Your task to perform on an android device: Open Youtube and go to the subscriptions tab Image 0: 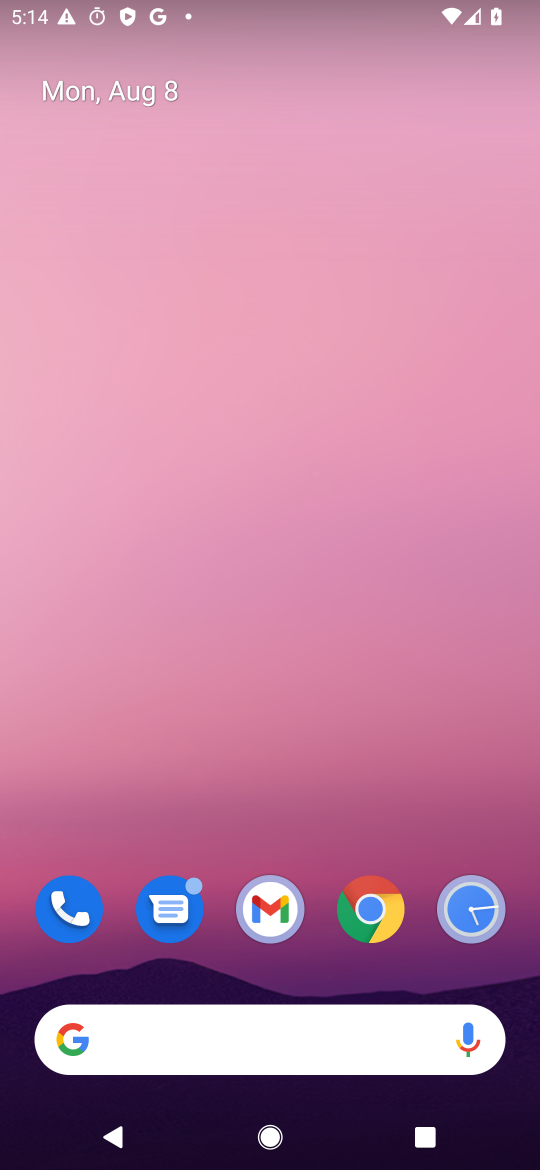
Step 0: drag from (291, 1032) to (500, 75)
Your task to perform on an android device: Open Youtube and go to the subscriptions tab Image 1: 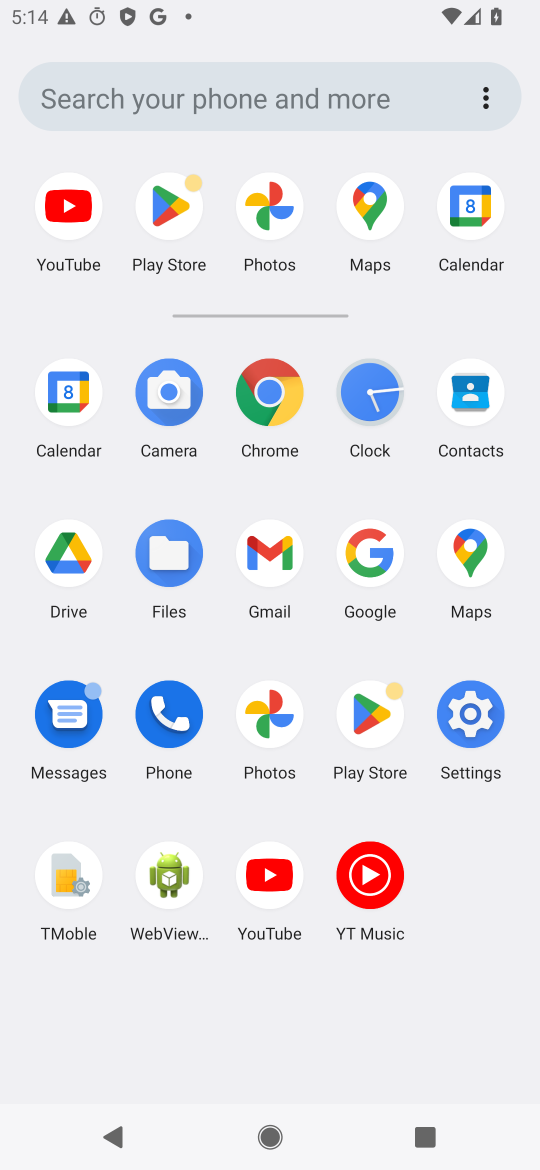
Step 1: click (276, 890)
Your task to perform on an android device: Open Youtube and go to the subscriptions tab Image 2: 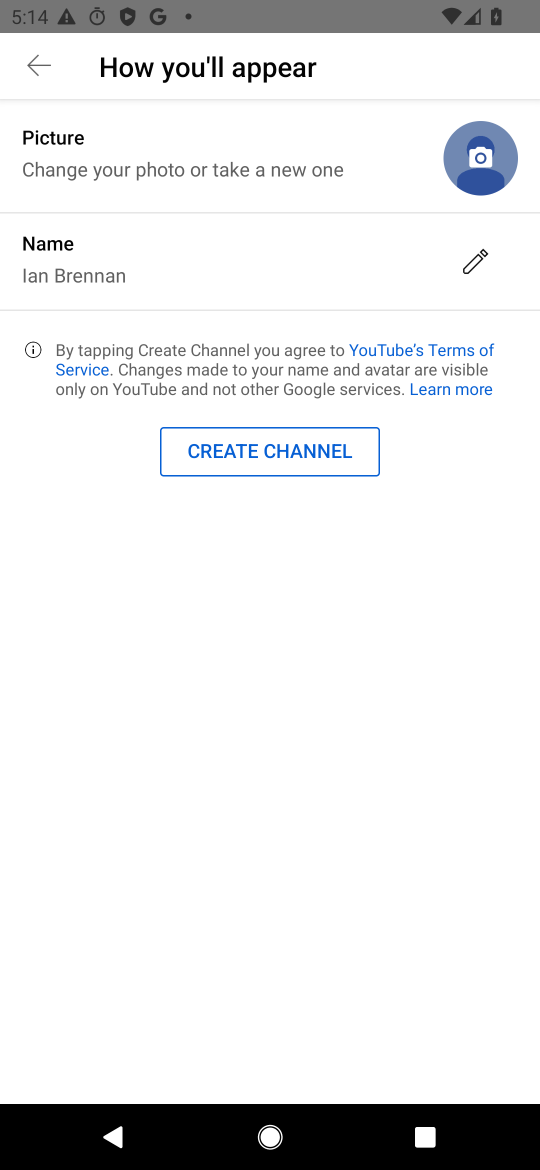
Step 2: click (39, 60)
Your task to perform on an android device: Open Youtube and go to the subscriptions tab Image 3: 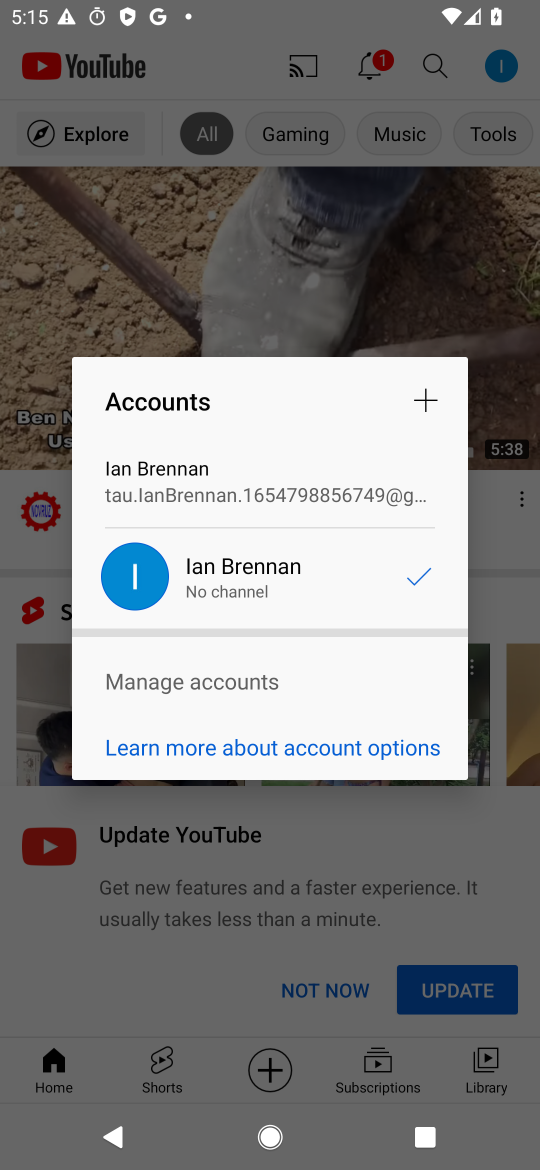
Step 3: click (383, 1073)
Your task to perform on an android device: Open Youtube and go to the subscriptions tab Image 4: 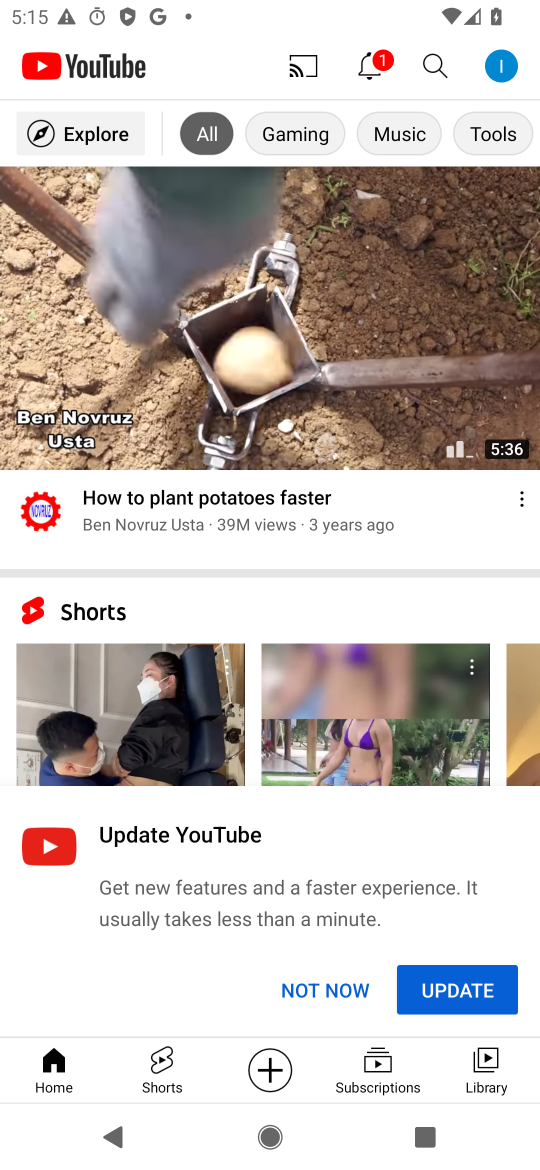
Step 4: click (366, 1072)
Your task to perform on an android device: Open Youtube and go to the subscriptions tab Image 5: 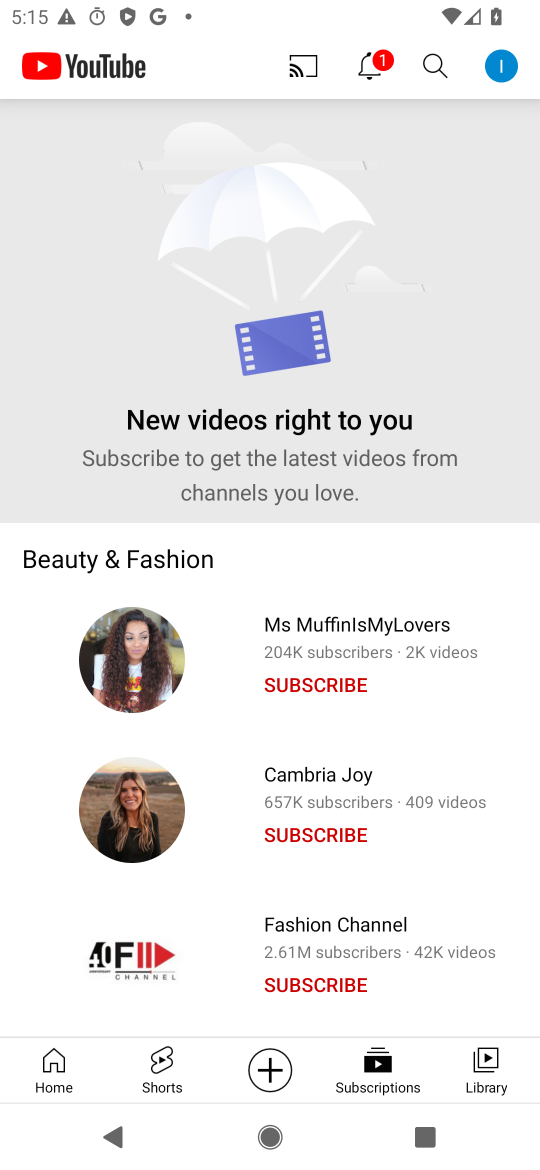
Step 5: task complete